Your task to perform on an android device: Show me productivity apps on the Play Store Image 0: 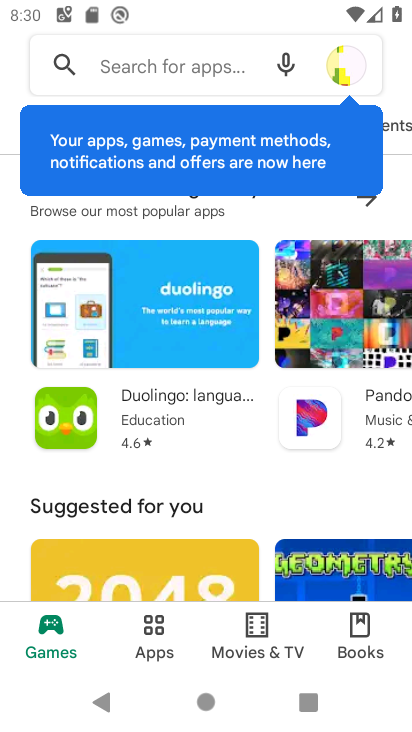
Step 0: press home button
Your task to perform on an android device: Show me productivity apps on the Play Store Image 1: 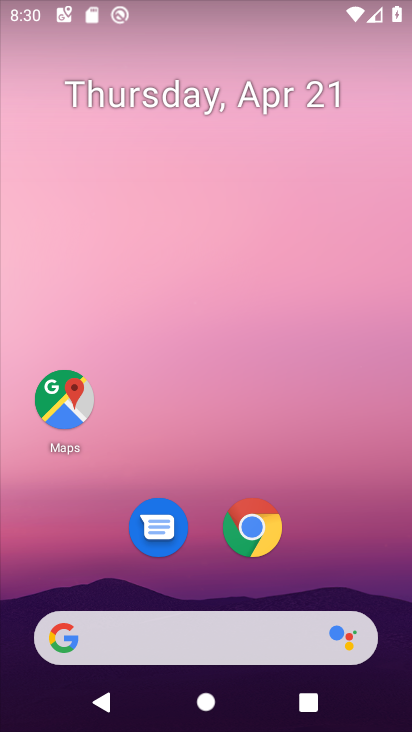
Step 1: drag from (281, 627) to (216, 225)
Your task to perform on an android device: Show me productivity apps on the Play Store Image 2: 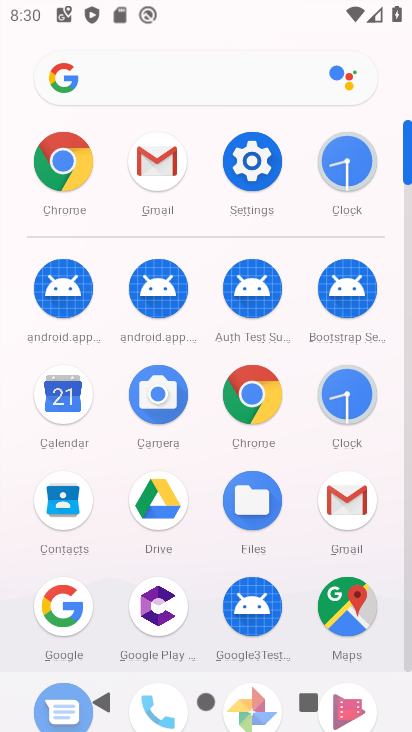
Step 2: click (409, 456)
Your task to perform on an android device: Show me productivity apps on the Play Store Image 3: 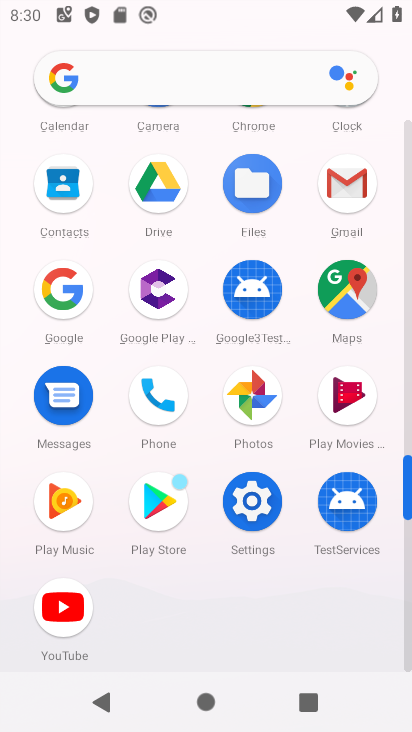
Step 3: click (169, 503)
Your task to perform on an android device: Show me productivity apps on the Play Store Image 4: 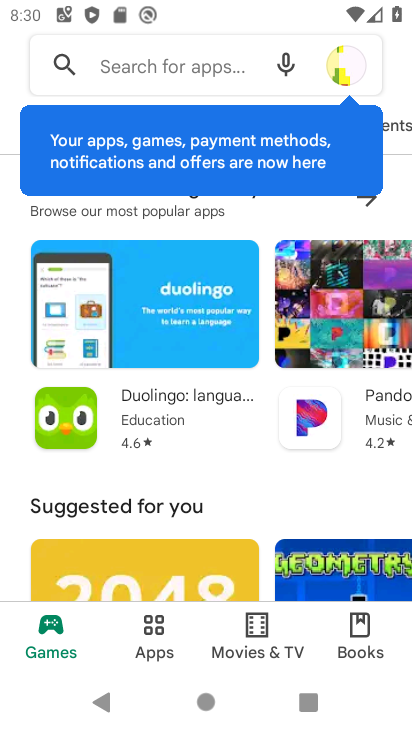
Step 4: click (182, 56)
Your task to perform on an android device: Show me productivity apps on the Play Store Image 5: 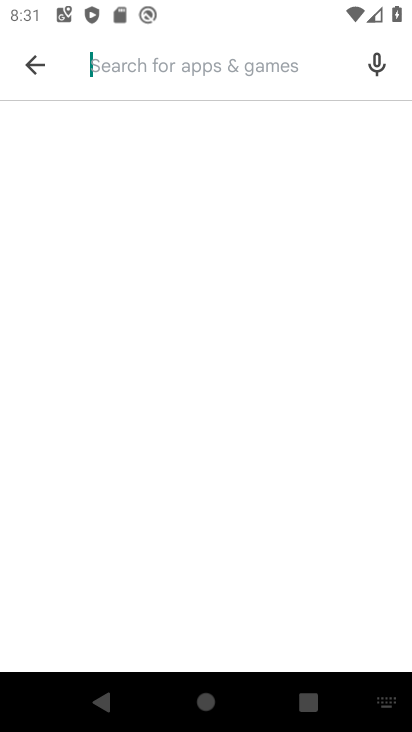
Step 5: type "productivity aaps"
Your task to perform on an android device: Show me productivity apps on the Play Store Image 6: 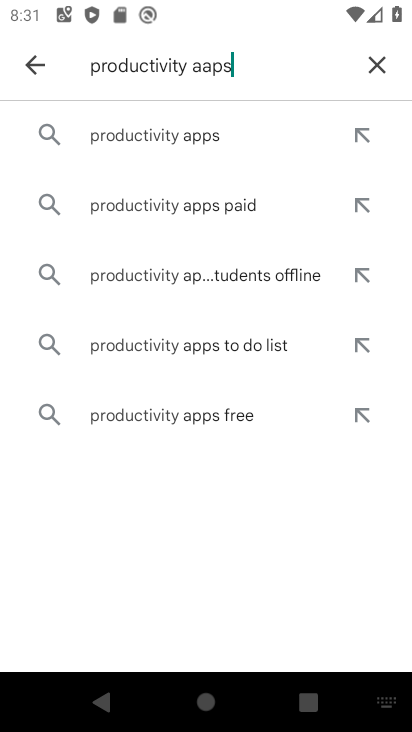
Step 6: click (261, 131)
Your task to perform on an android device: Show me productivity apps on the Play Store Image 7: 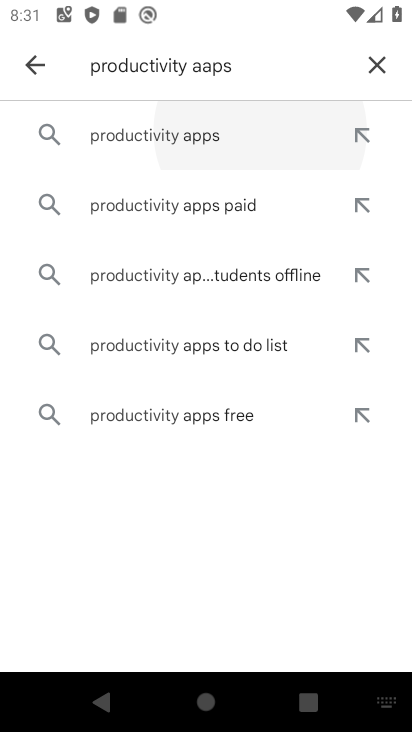
Step 7: task complete